Your task to perform on an android device: delete the emails in spam in the gmail app Image 0: 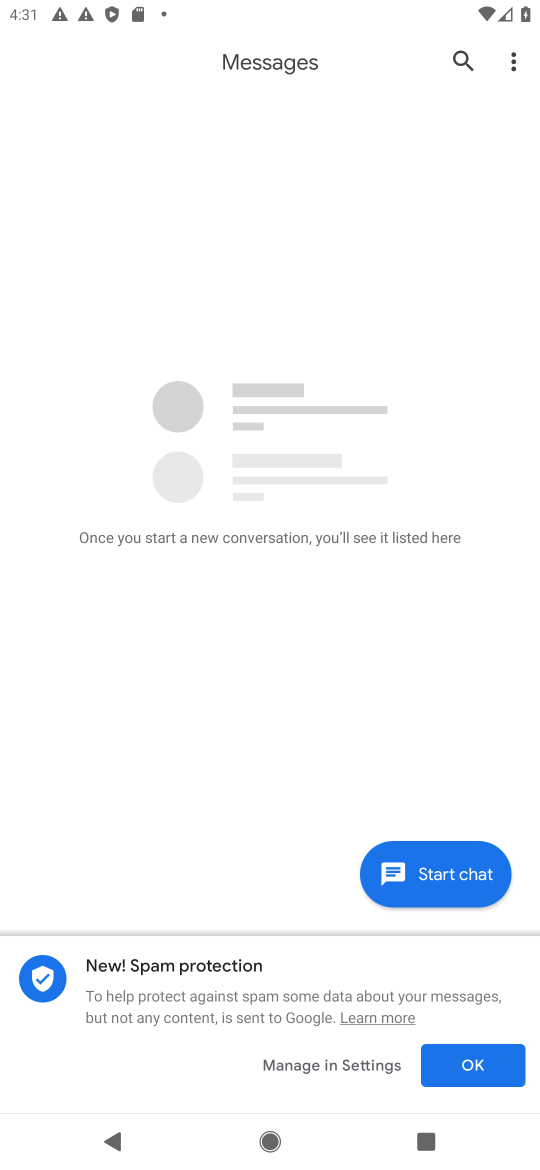
Step 0: press home button
Your task to perform on an android device: delete the emails in spam in the gmail app Image 1: 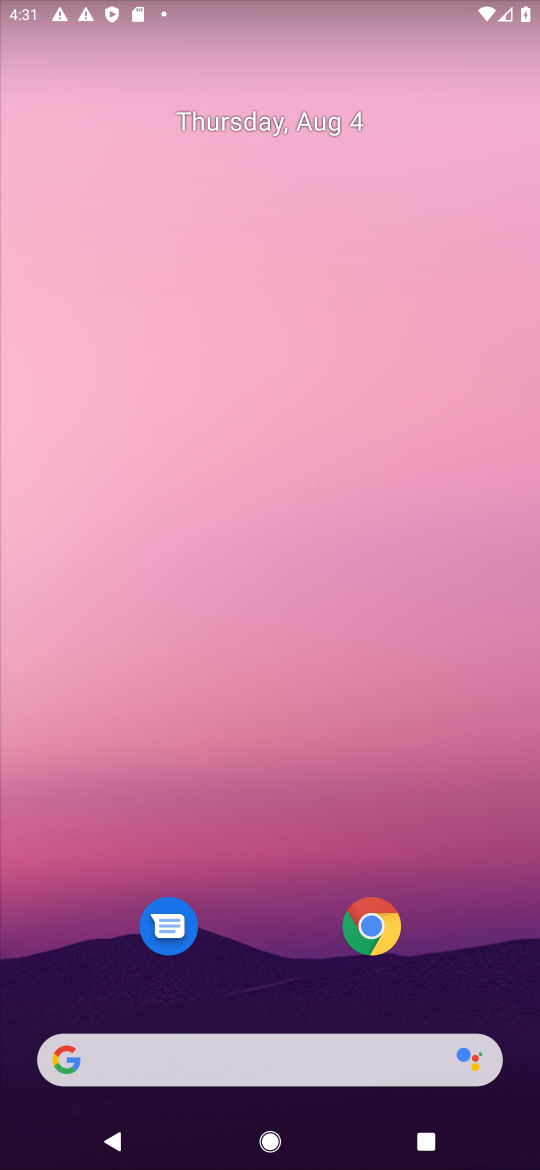
Step 1: drag from (282, 731) to (358, 3)
Your task to perform on an android device: delete the emails in spam in the gmail app Image 2: 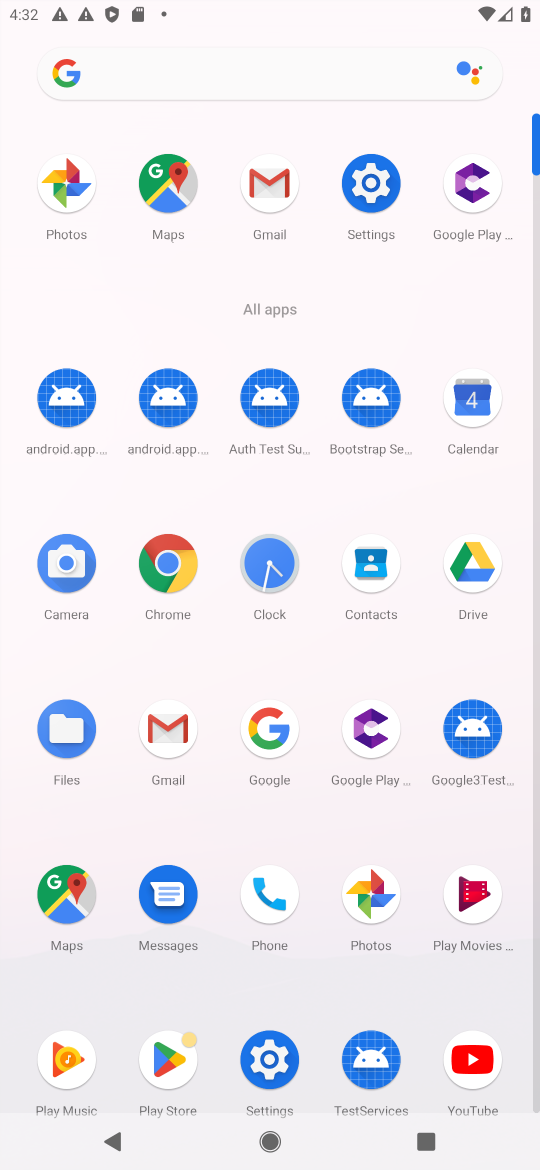
Step 2: click (266, 190)
Your task to perform on an android device: delete the emails in spam in the gmail app Image 3: 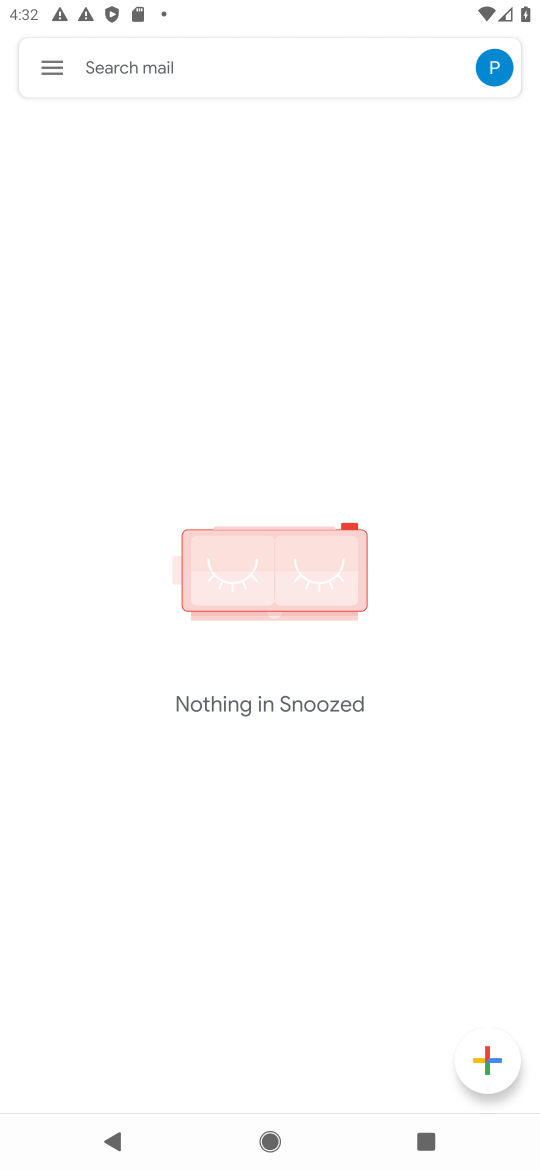
Step 3: click (40, 68)
Your task to perform on an android device: delete the emails in spam in the gmail app Image 4: 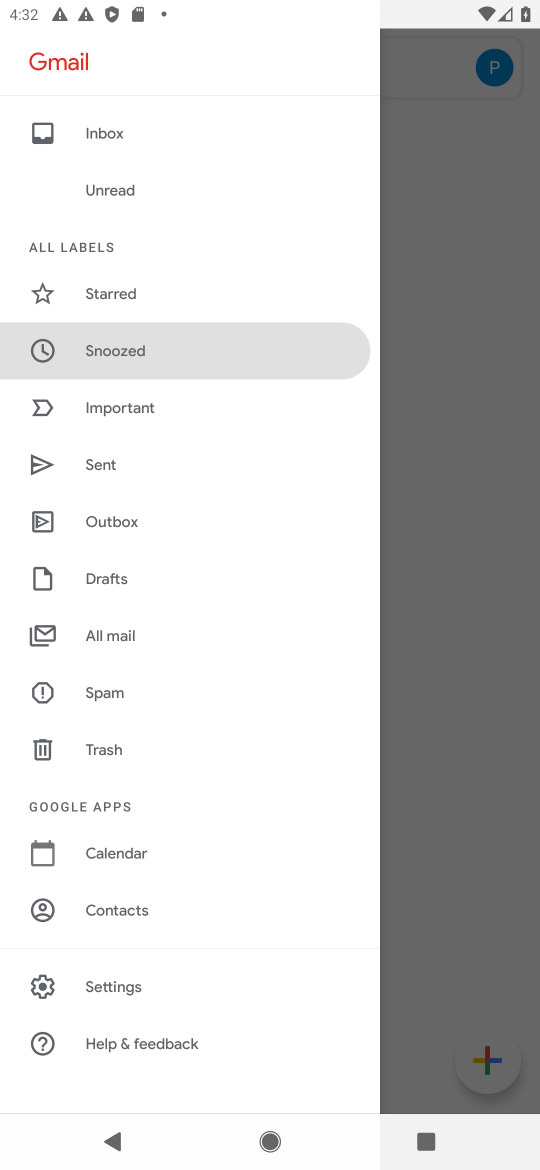
Step 4: click (105, 691)
Your task to perform on an android device: delete the emails in spam in the gmail app Image 5: 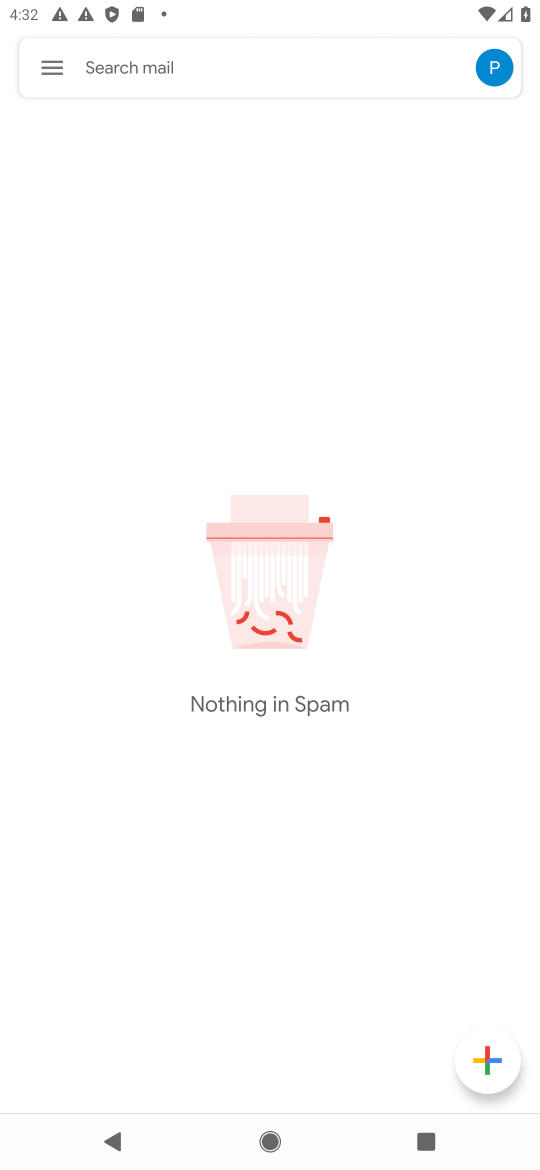
Step 5: task complete